Your task to perform on an android device: show emergency info Image 0: 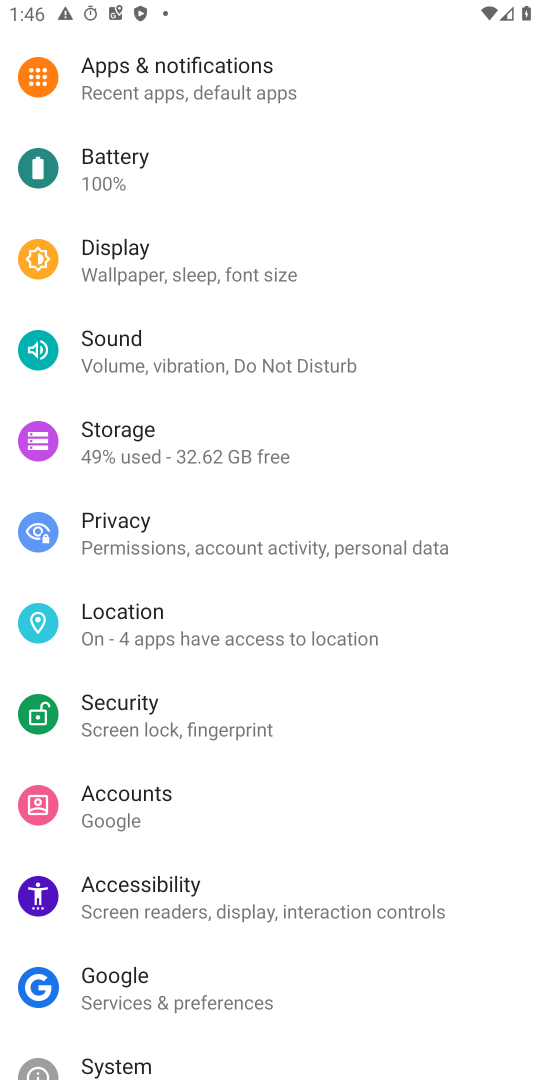
Step 0: drag from (140, 1060) to (68, 469)
Your task to perform on an android device: show emergency info Image 1: 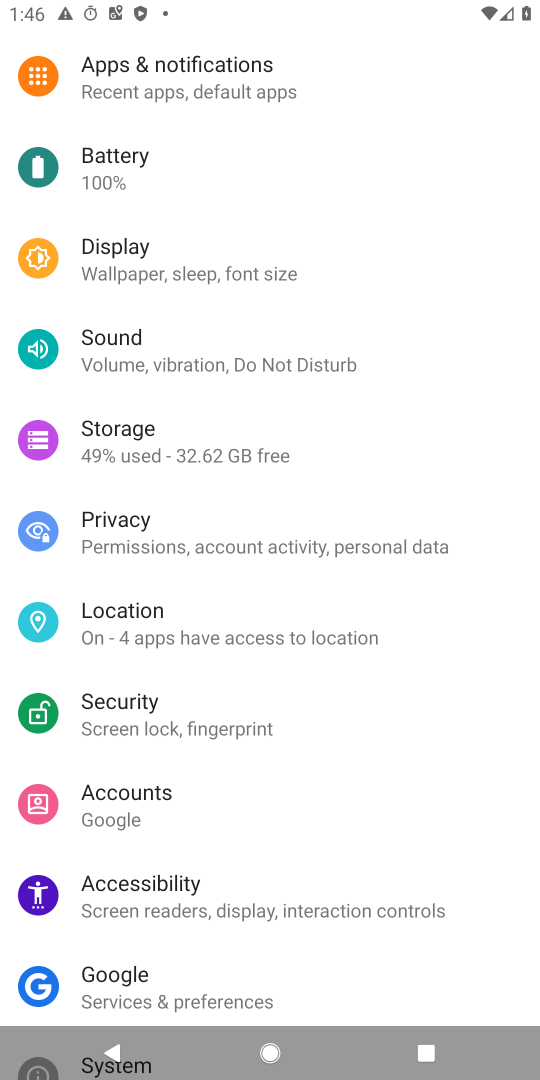
Step 1: drag from (163, 973) to (163, 411)
Your task to perform on an android device: show emergency info Image 2: 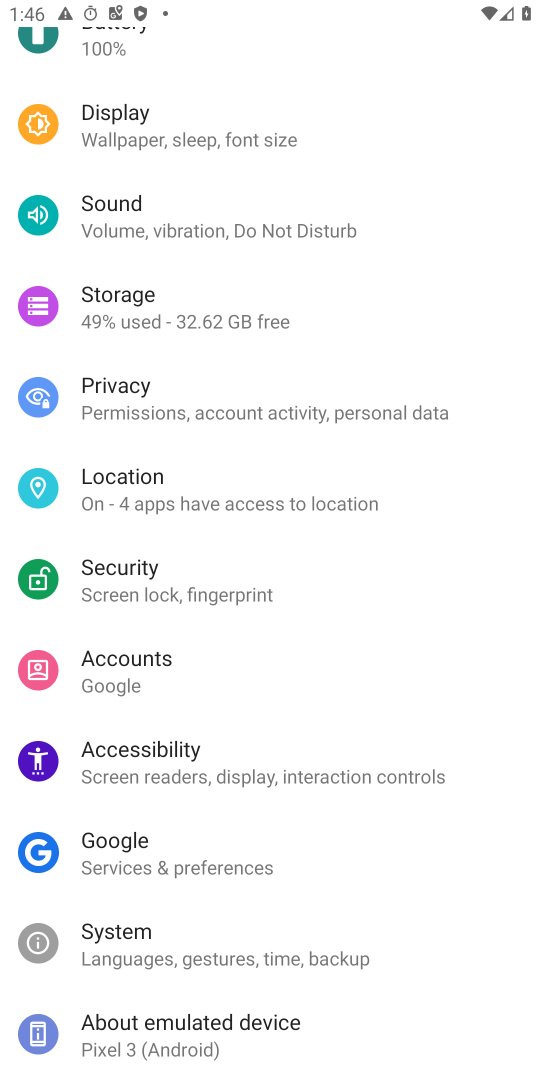
Step 2: click (174, 1018)
Your task to perform on an android device: show emergency info Image 3: 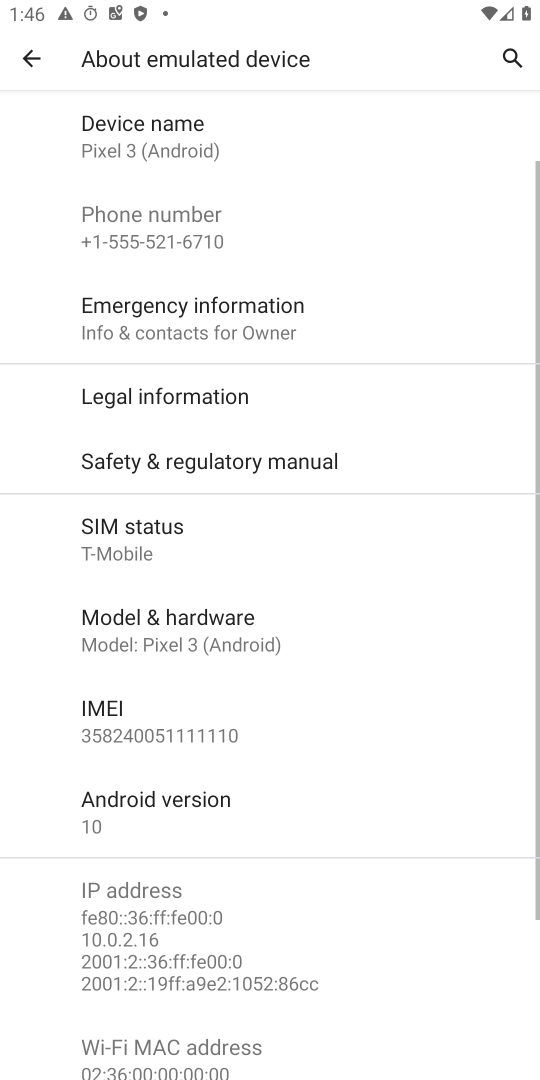
Step 3: click (188, 307)
Your task to perform on an android device: show emergency info Image 4: 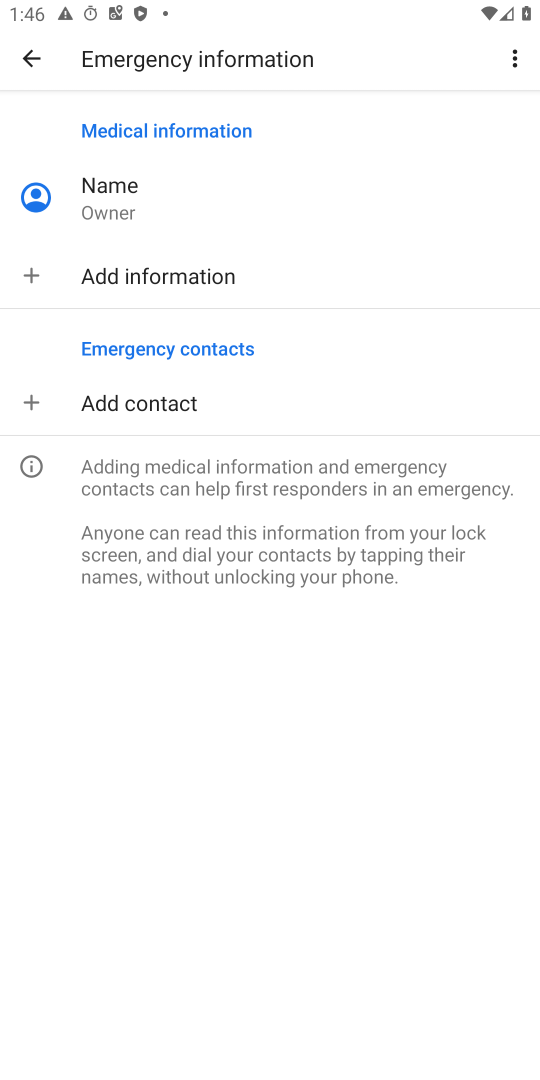
Step 4: task complete